Your task to perform on an android device: Open Google Chrome Image 0: 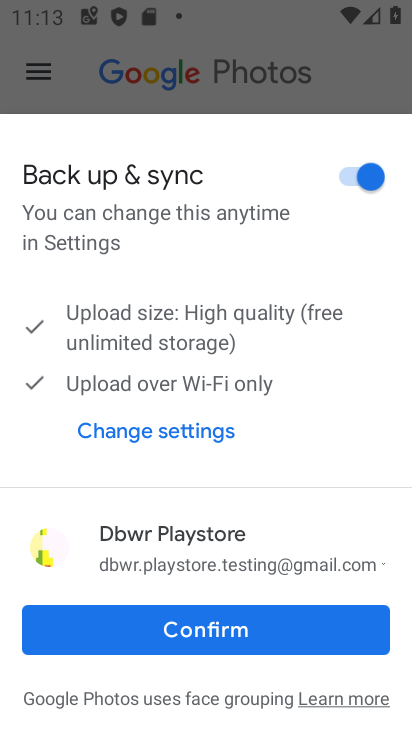
Step 0: press home button
Your task to perform on an android device: Open Google Chrome Image 1: 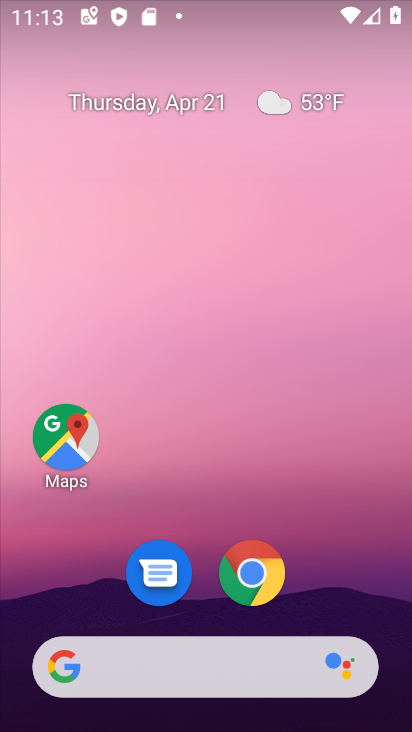
Step 1: drag from (326, 574) to (318, 71)
Your task to perform on an android device: Open Google Chrome Image 2: 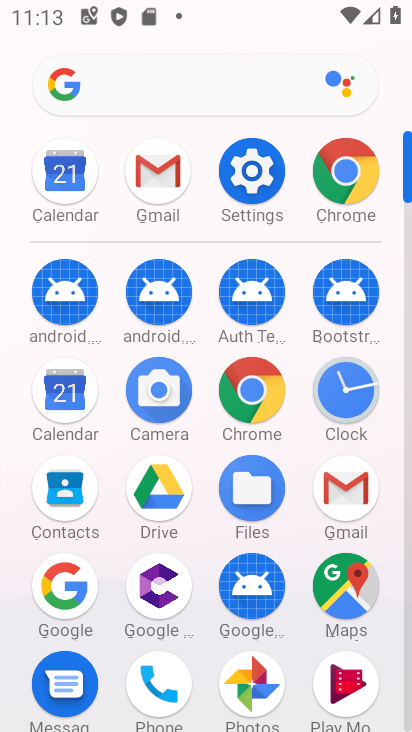
Step 2: click (249, 403)
Your task to perform on an android device: Open Google Chrome Image 3: 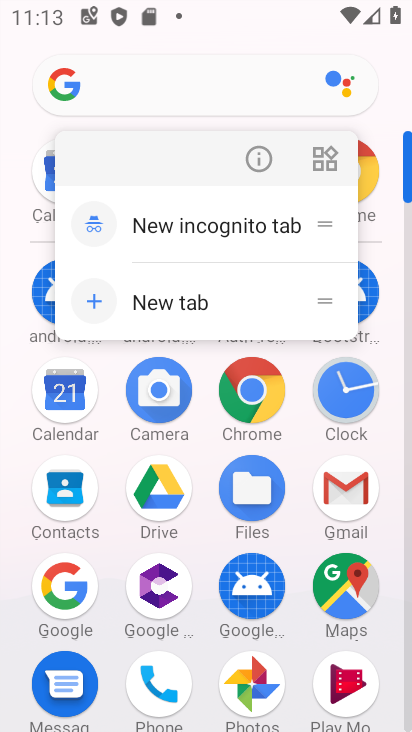
Step 3: click (265, 393)
Your task to perform on an android device: Open Google Chrome Image 4: 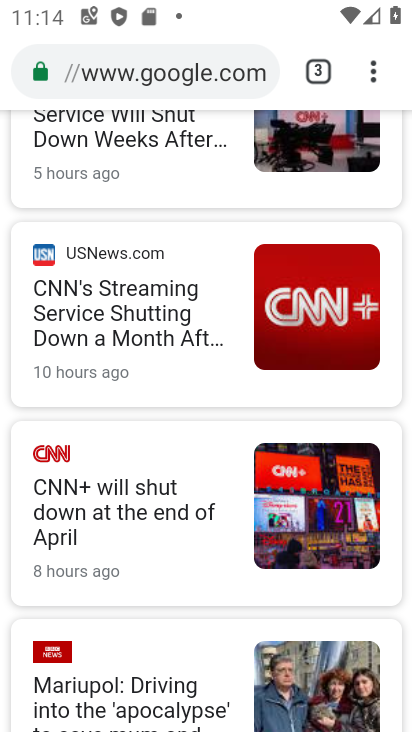
Step 4: task complete